Your task to perform on an android device: Open calendar and show me the second week of next month Image 0: 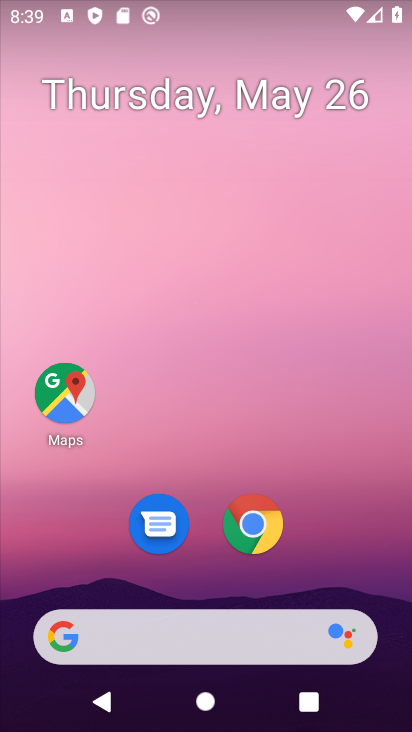
Step 0: drag from (265, 445) to (205, 31)
Your task to perform on an android device: Open calendar and show me the second week of next month Image 1: 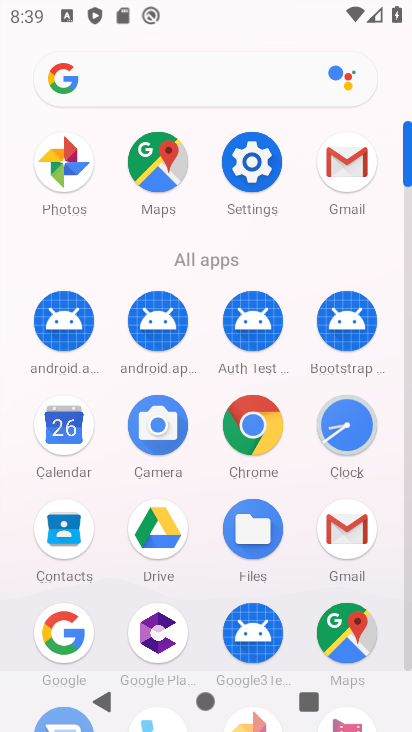
Step 1: click (63, 429)
Your task to perform on an android device: Open calendar and show me the second week of next month Image 2: 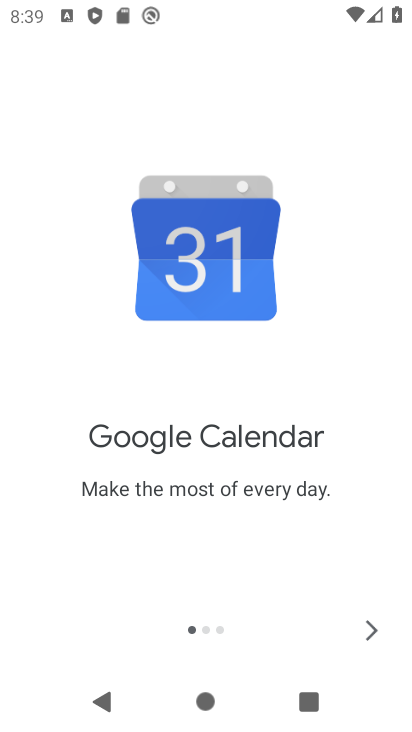
Step 2: click (378, 632)
Your task to perform on an android device: Open calendar and show me the second week of next month Image 3: 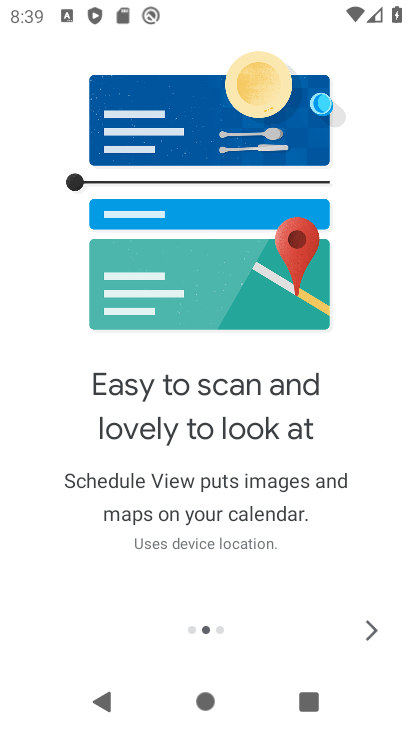
Step 3: click (378, 631)
Your task to perform on an android device: Open calendar and show me the second week of next month Image 4: 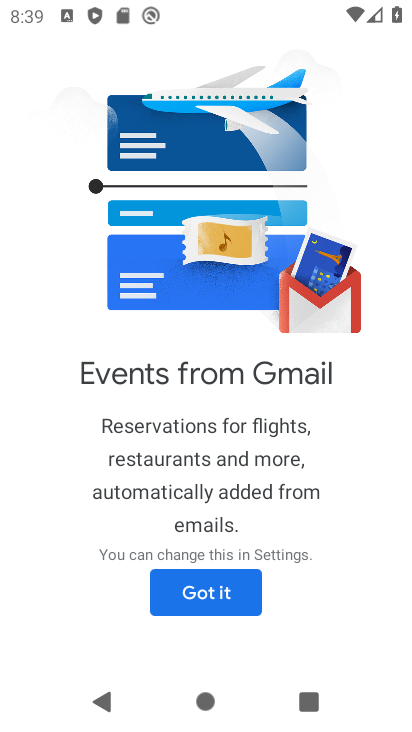
Step 4: click (249, 589)
Your task to perform on an android device: Open calendar and show me the second week of next month Image 5: 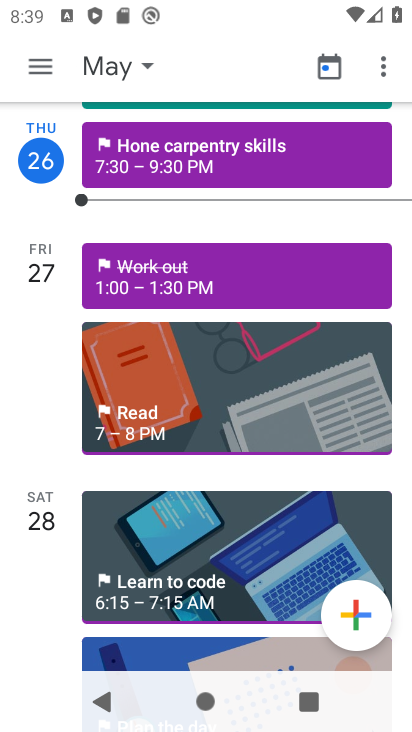
Step 5: click (46, 60)
Your task to perform on an android device: Open calendar and show me the second week of next month Image 6: 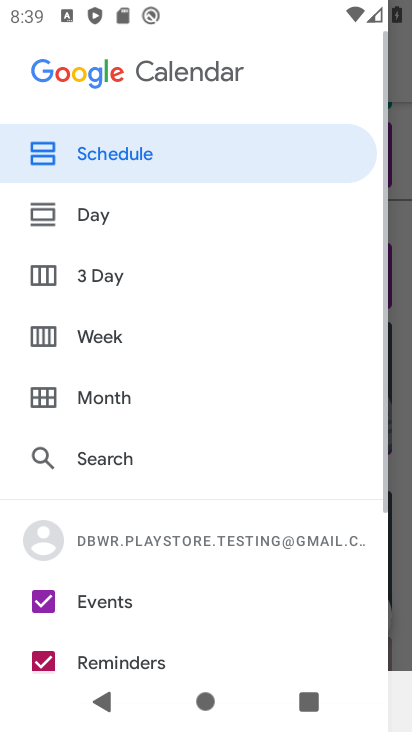
Step 6: click (103, 401)
Your task to perform on an android device: Open calendar and show me the second week of next month Image 7: 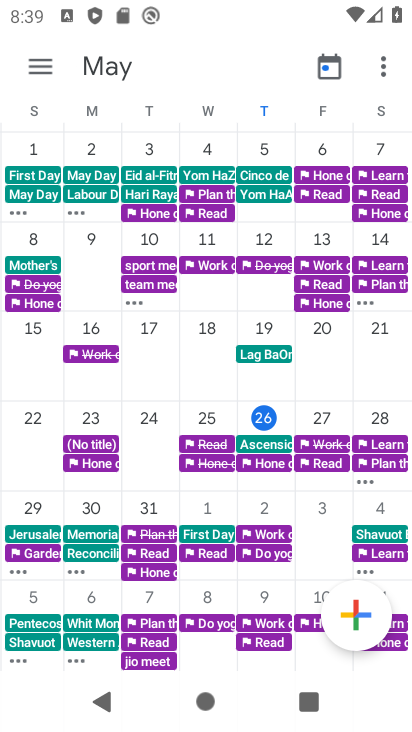
Step 7: drag from (363, 371) to (63, 344)
Your task to perform on an android device: Open calendar and show me the second week of next month Image 8: 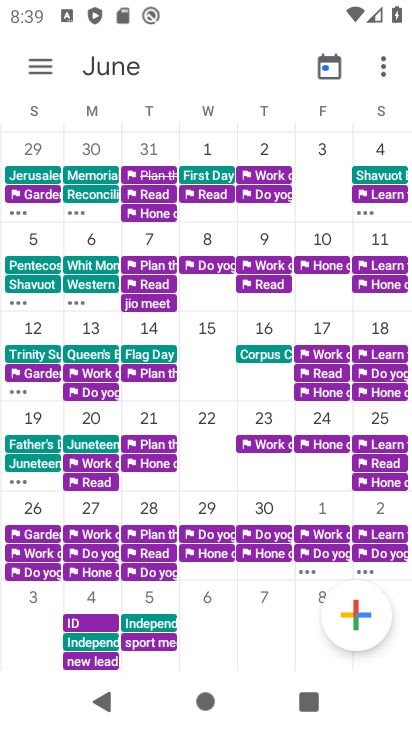
Step 8: click (34, 321)
Your task to perform on an android device: Open calendar and show me the second week of next month Image 9: 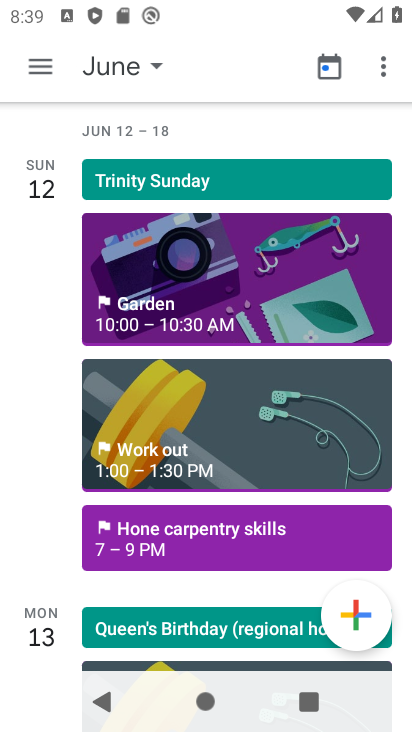
Step 9: click (48, 53)
Your task to perform on an android device: Open calendar and show me the second week of next month Image 10: 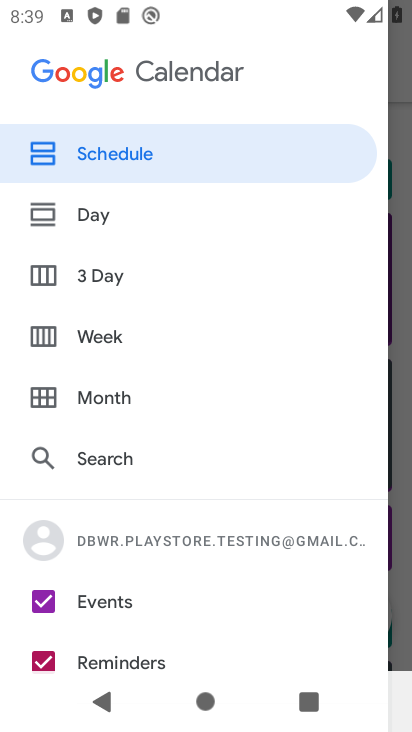
Step 10: click (101, 331)
Your task to perform on an android device: Open calendar and show me the second week of next month Image 11: 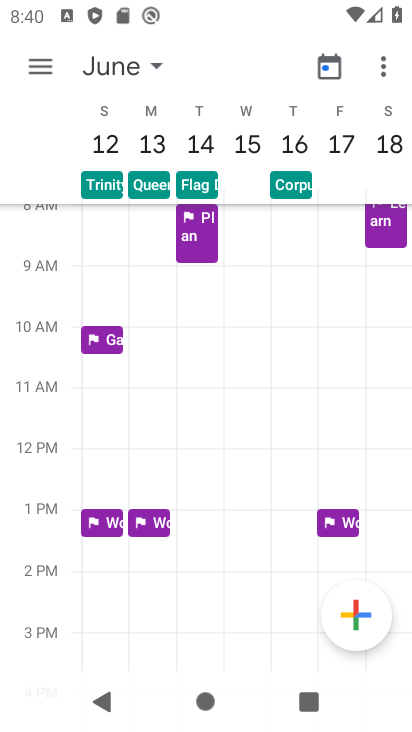
Step 11: task complete